Your task to perform on an android device: open app "Pinterest" Image 0: 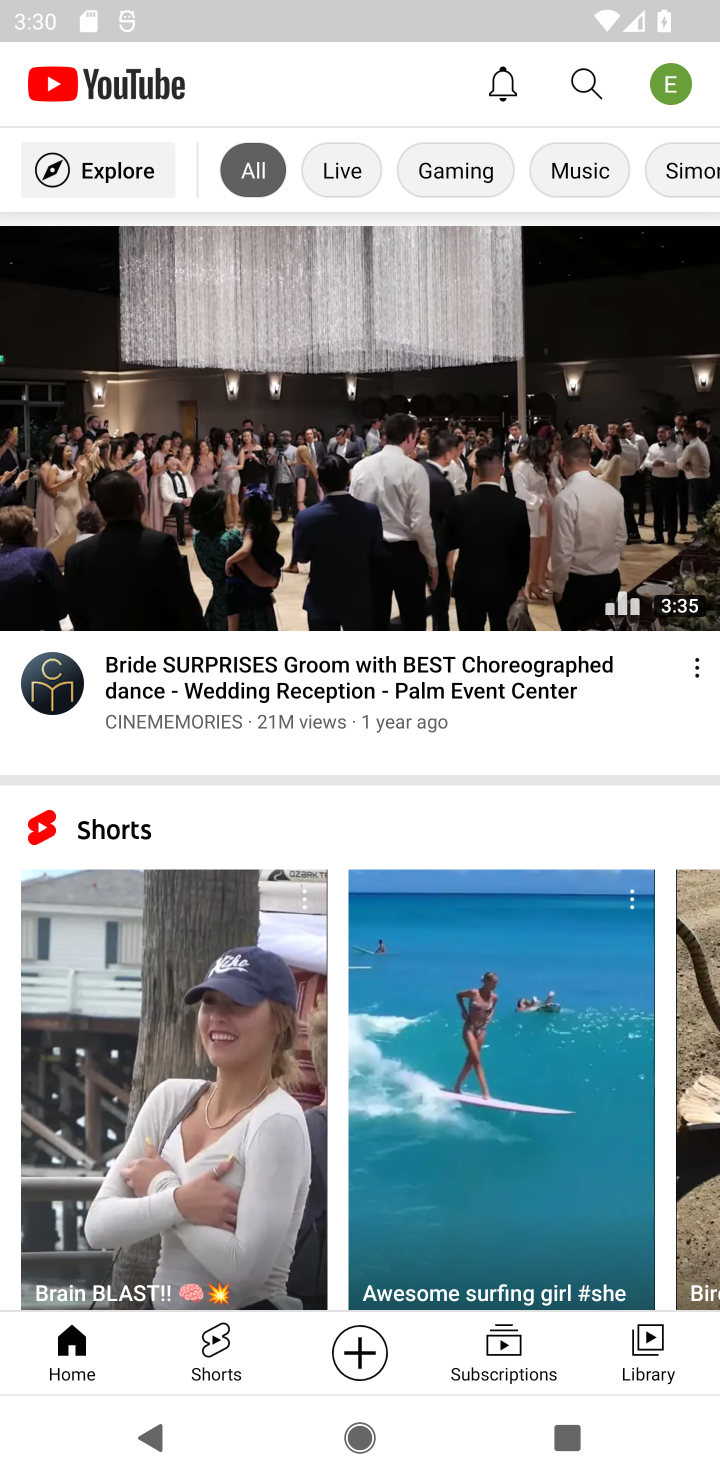
Step 0: press home button
Your task to perform on an android device: open app "Pinterest" Image 1: 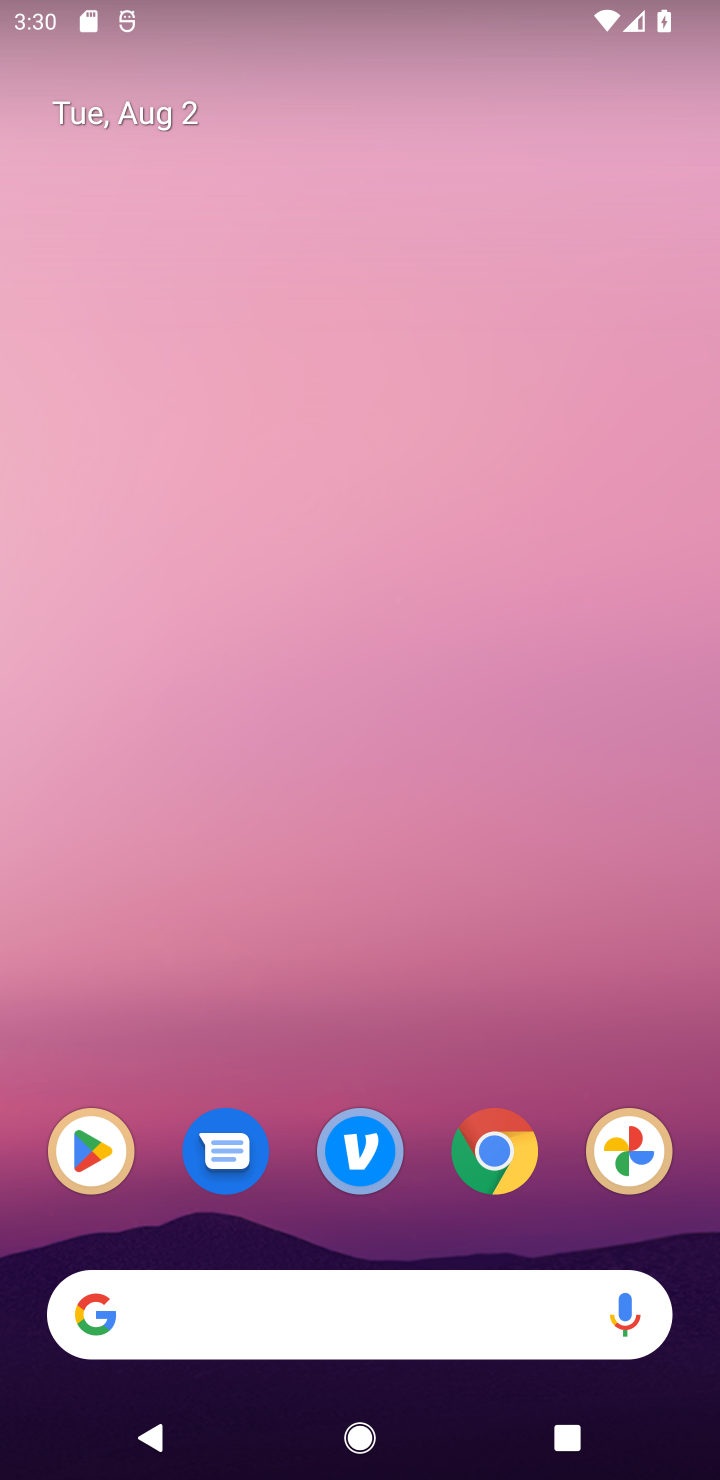
Step 1: task complete